Your task to perform on an android device: Empty the shopping cart on walmart. Image 0: 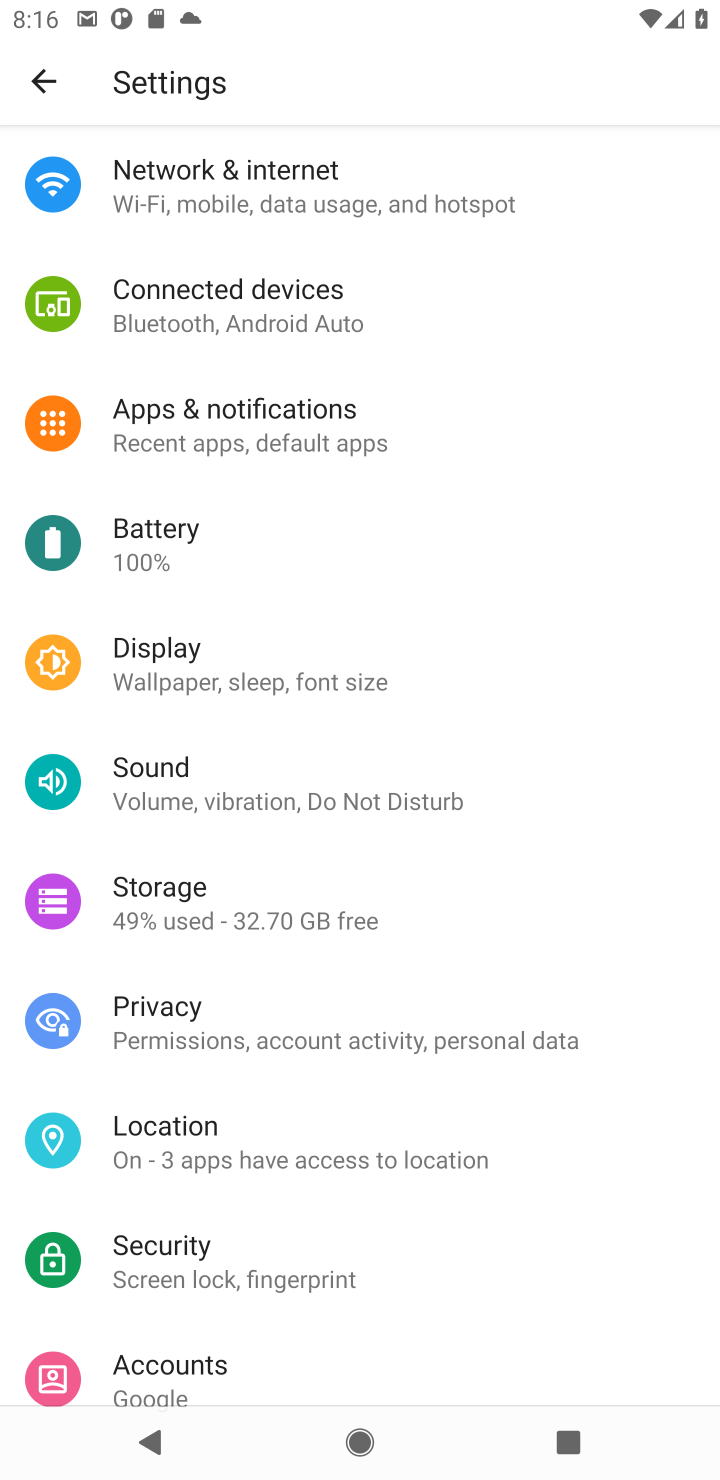
Step 0: press home button
Your task to perform on an android device: Empty the shopping cart on walmart. Image 1: 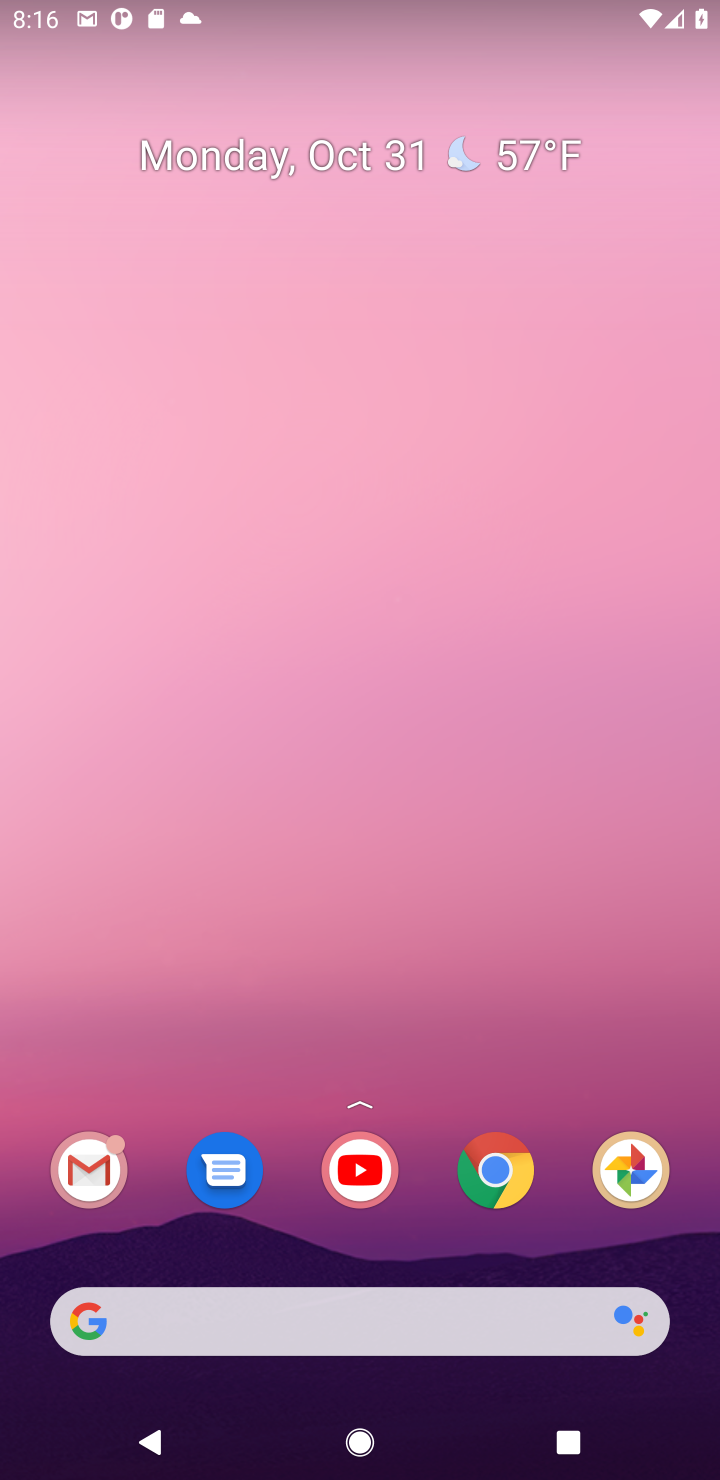
Step 1: click (494, 1164)
Your task to perform on an android device: Empty the shopping cart on walmart. Image 2: 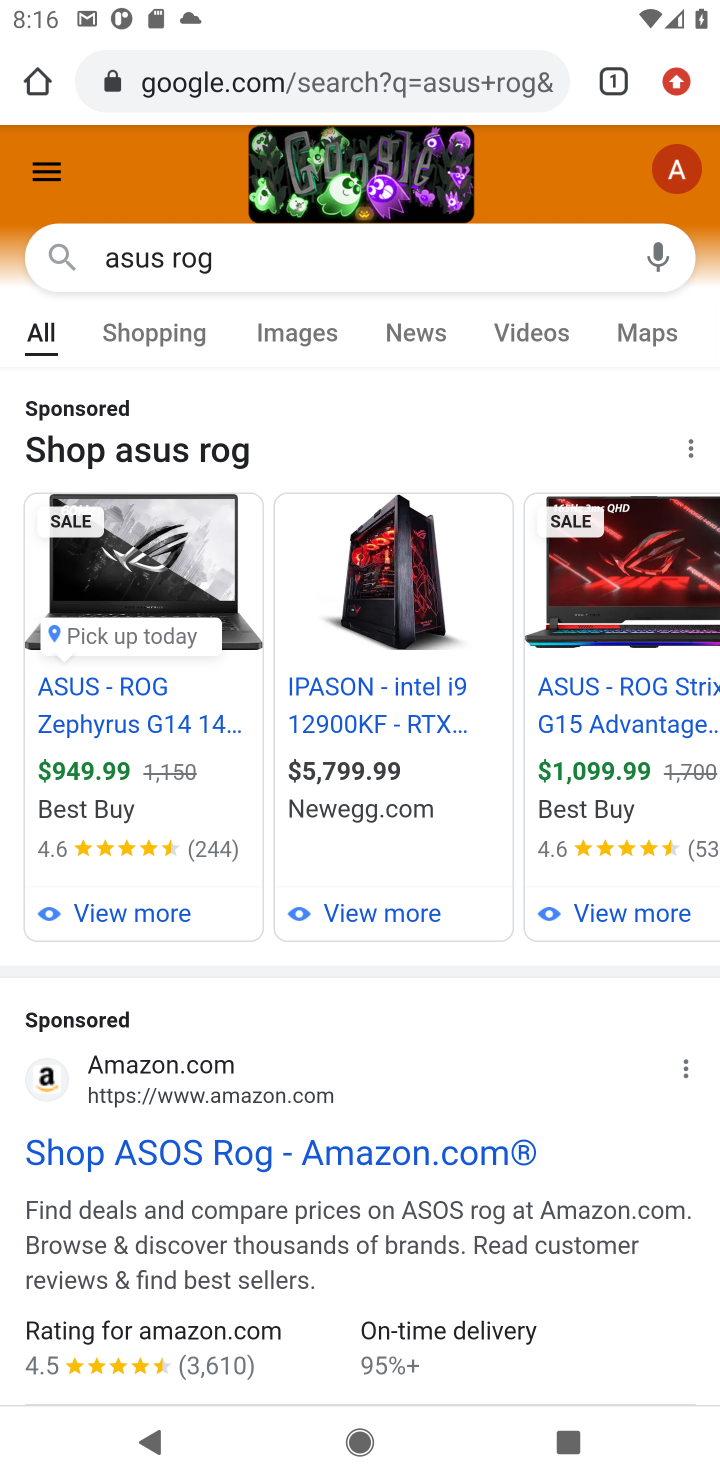
Step 2: click (514, 88)
Your task to perform on an android device: Empty the shopping cart on walmart. Image 3: 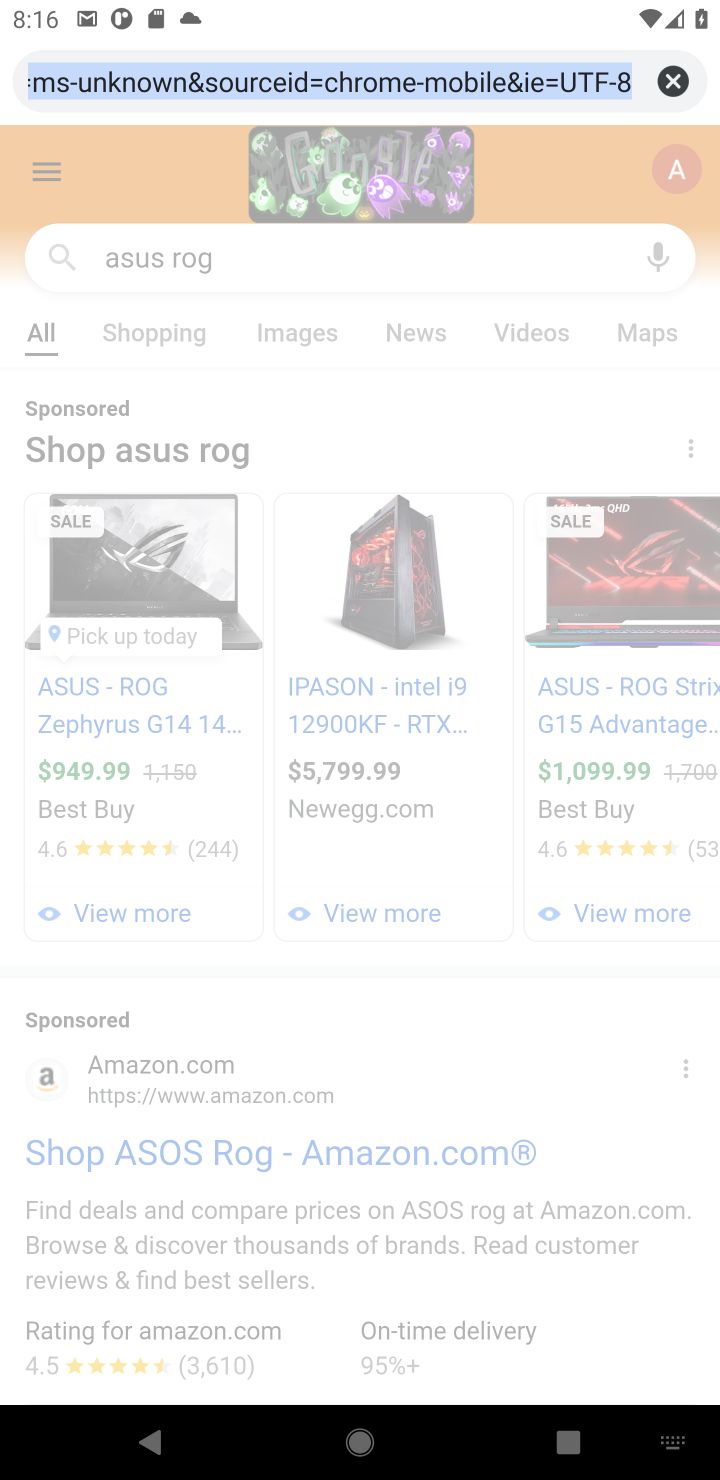
Step 3: click (671, 87)
Your task to perform on an android device: Empty the shopping cart on walmart. Image 4: 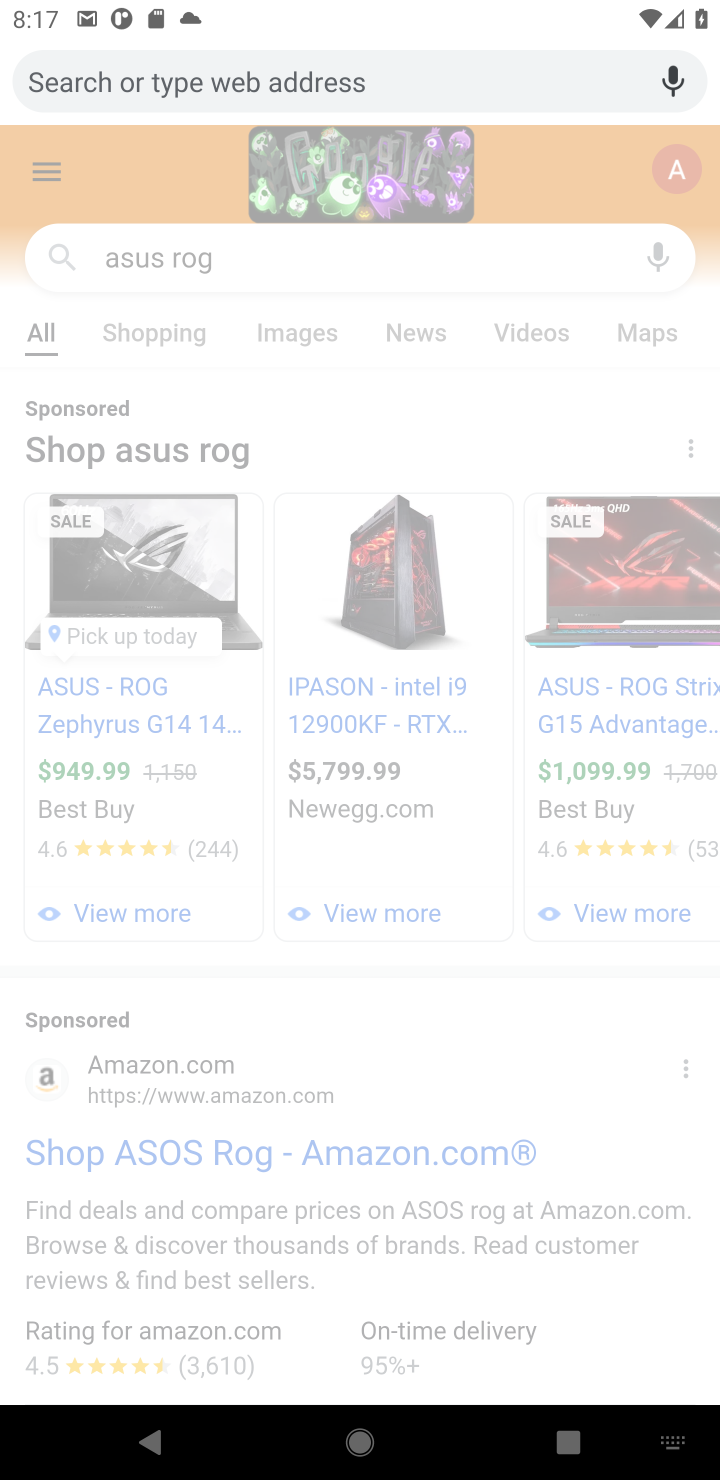
Step 4: type "walmart"
Your task to perform on an android device: Empty the shopping cart on walmart. Image 5: 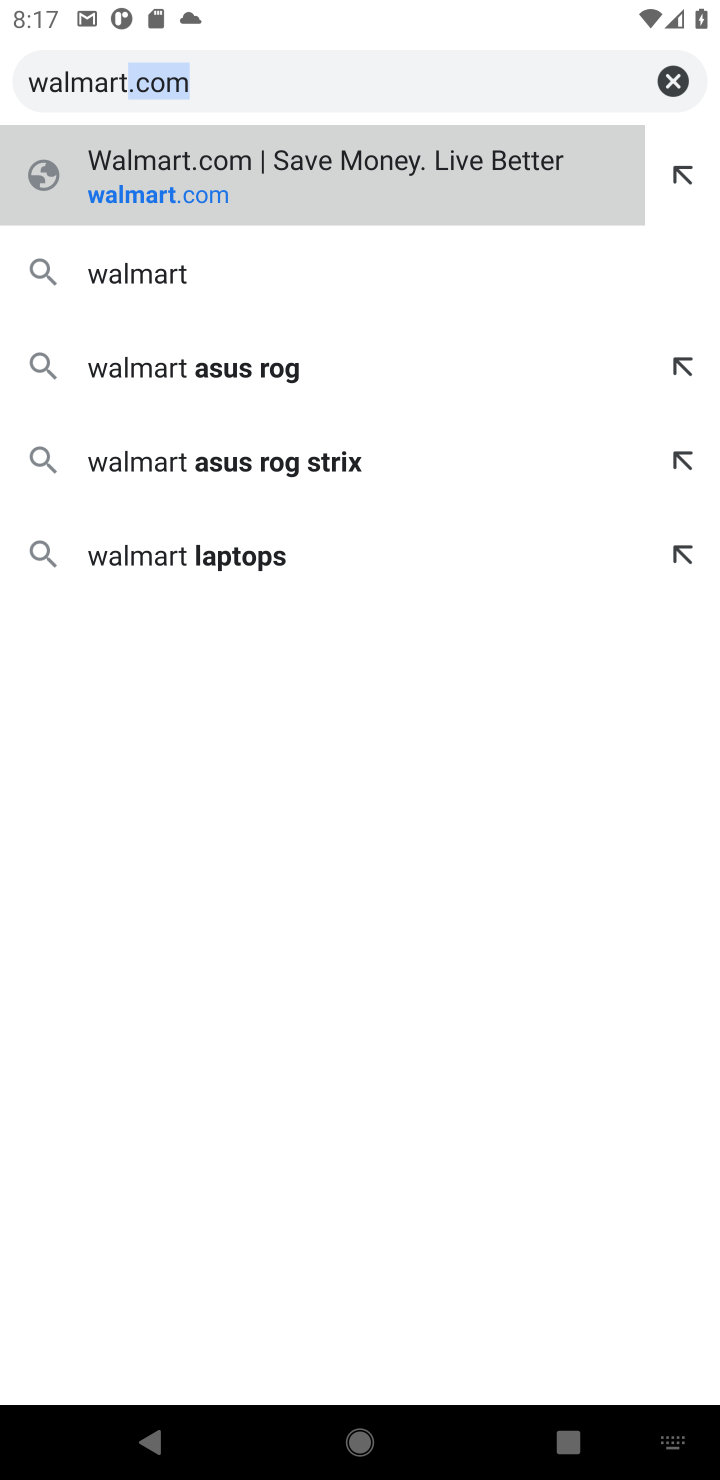
Step 5: type ""
Your task to perform on an android device: Empty the shopping cart on walmart. Image 6: 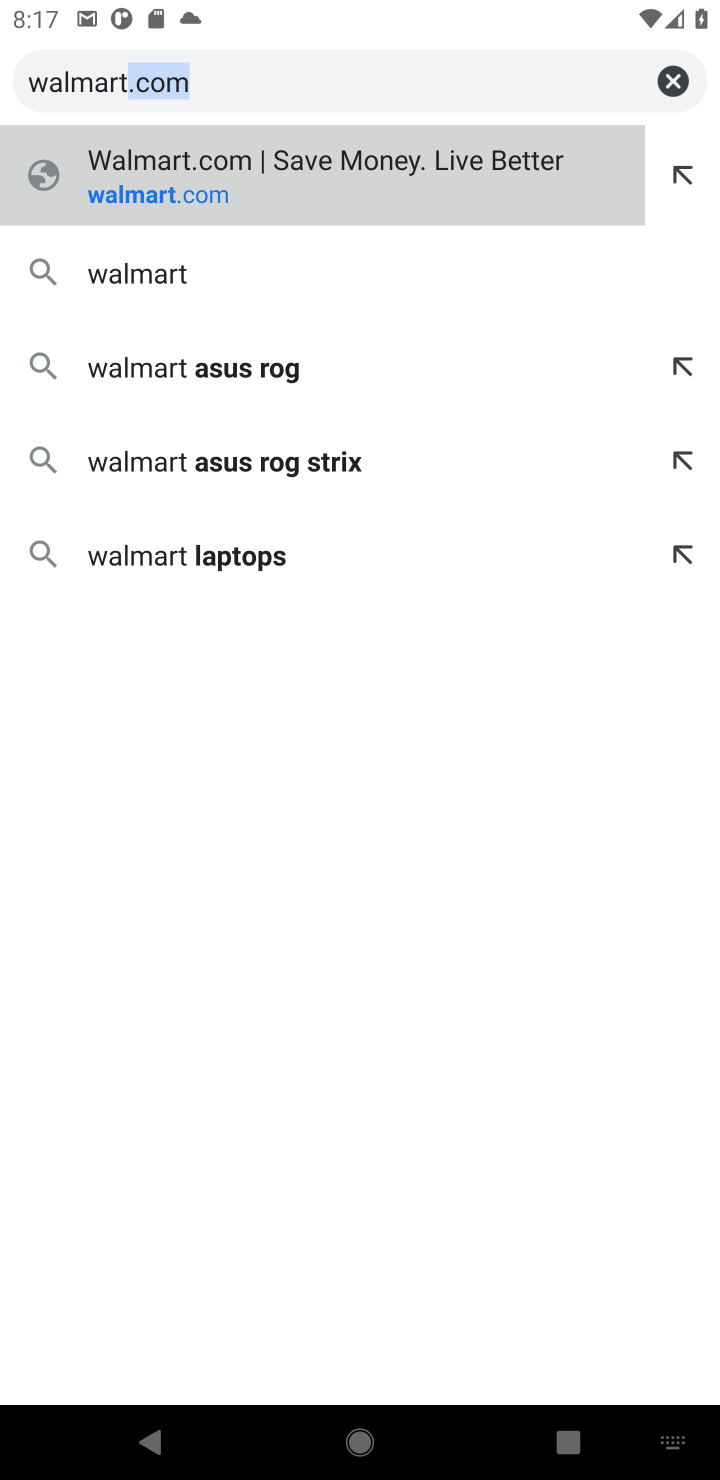
Step 6: click (177, 141)
Your task to perform on an android device: Empty the shopping cart on walmart. Image 7: 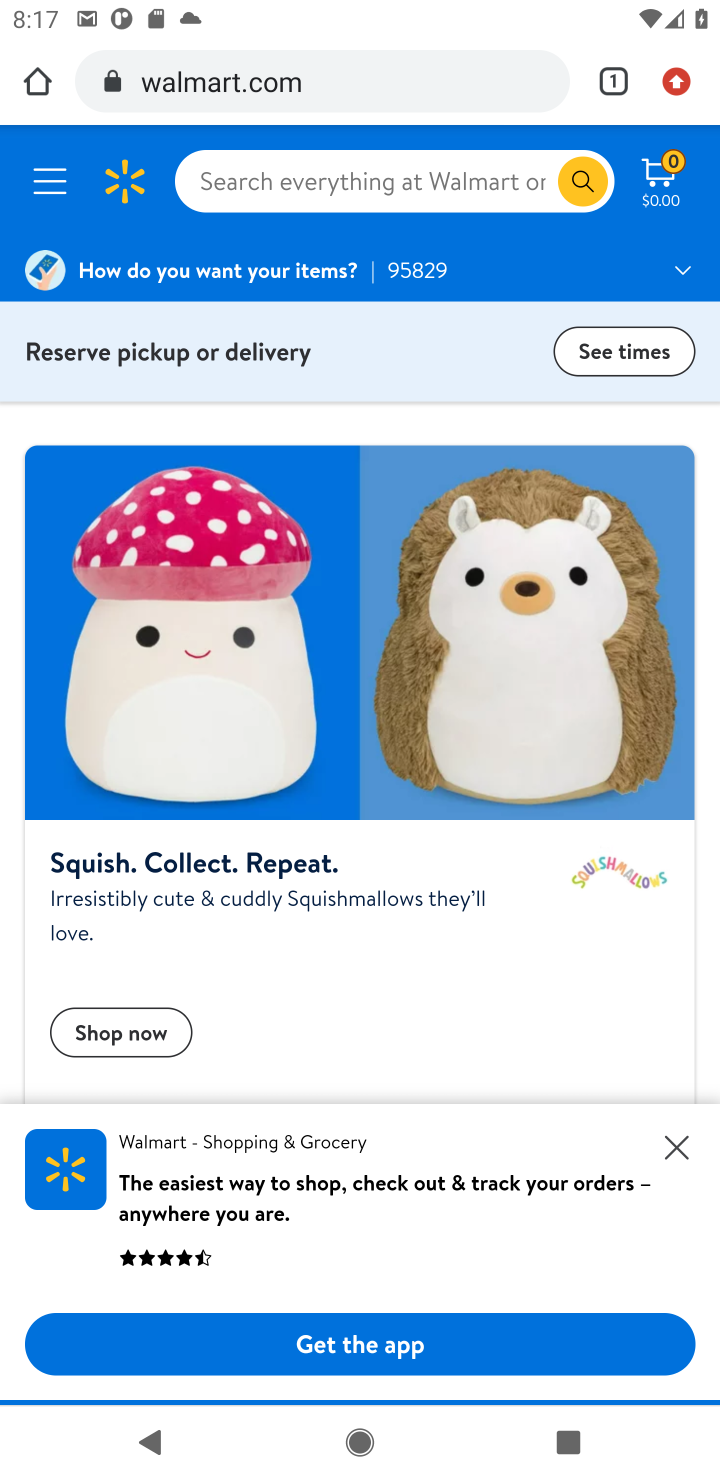
Step 7: click (657, 190)
Your task to perform on an android device: Empty the shopping cart on walmart. Image 8: 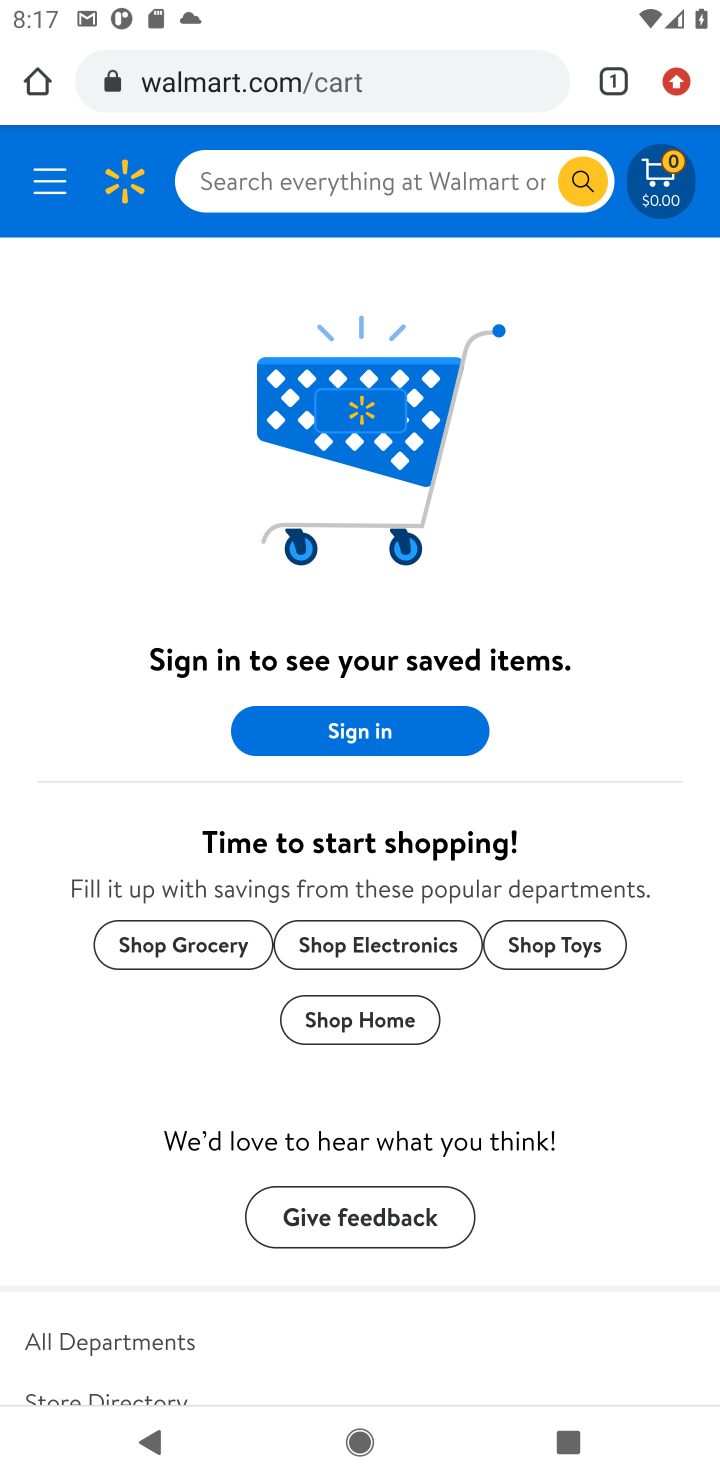
Step 8: task complete